Your task to perform on an android device: add a contact Image 0: 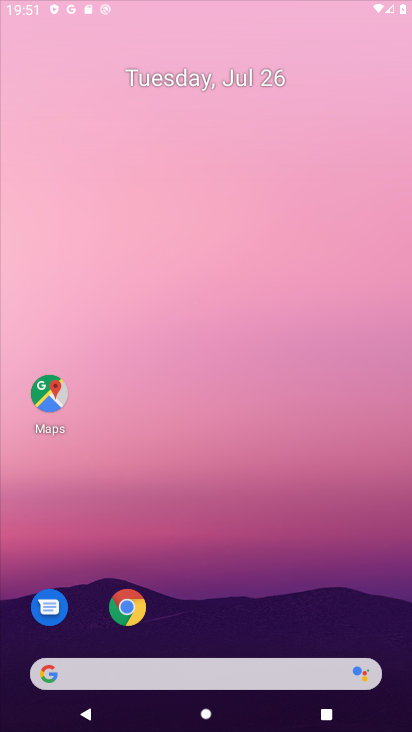
Step 0: click (213, 102)
Your task to perform on an android device: add a contact Image 1: 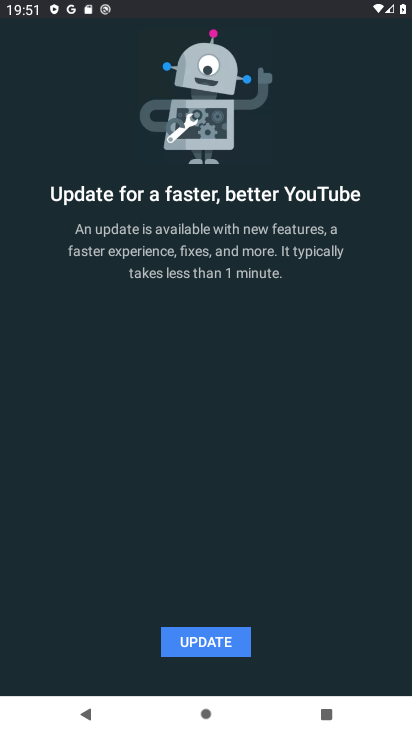
Step 1: press home button
Your task to perform on an android device: add a contact Image 2: 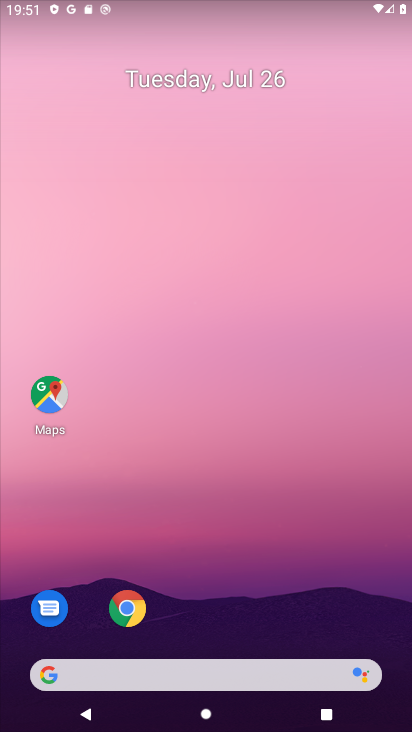
Step 2: drag from (317, 615) to (259, 124)
Your task to perform on an android device: add a contact Image 3: 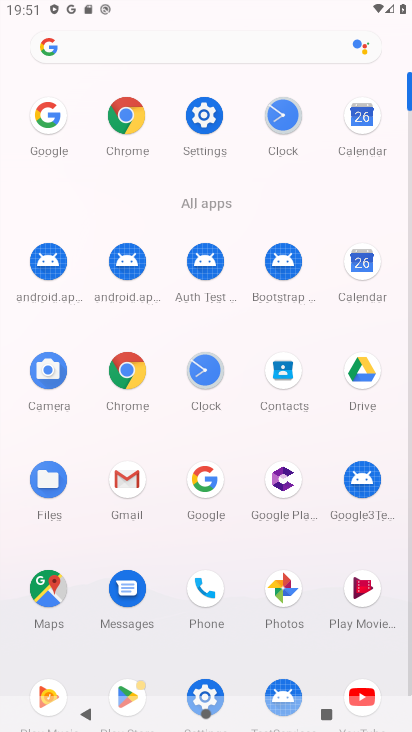
Step 3: click (200, 593)
Your task to perform on an android device: add a contact Image 4: 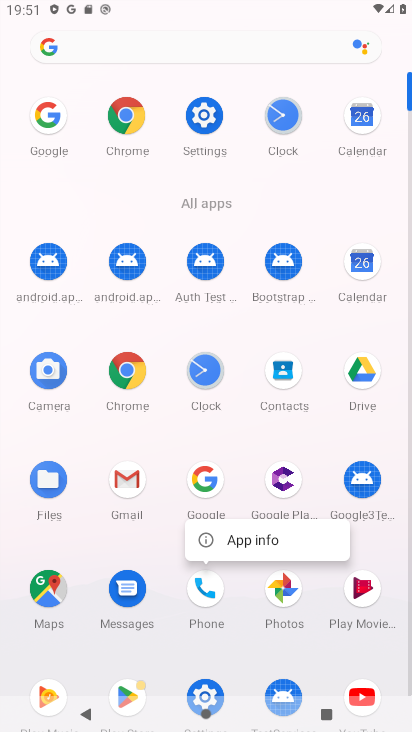
Step 4: click (199, 592)
Your task to perform on an android device: add a contact Image 5: 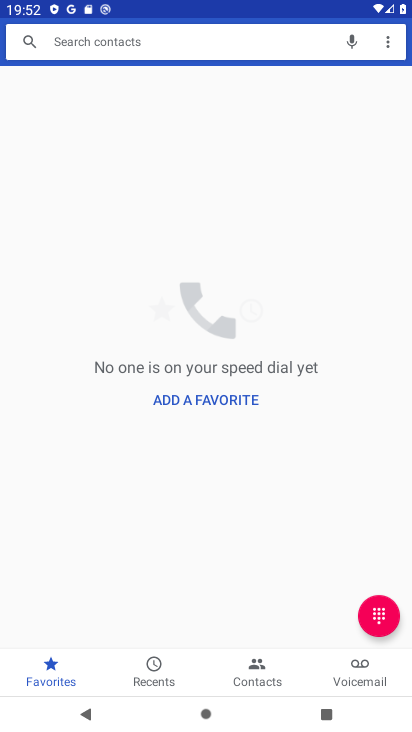
Step 5: click (265, 675)
Your task to perform on an android device: add a contact Image 6: 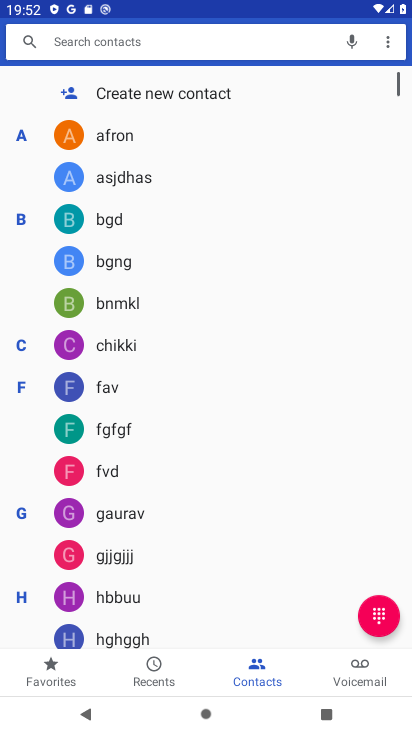
Step 6: task complete